Your task to perform on an android device: clear history in the chrome app Image 0: 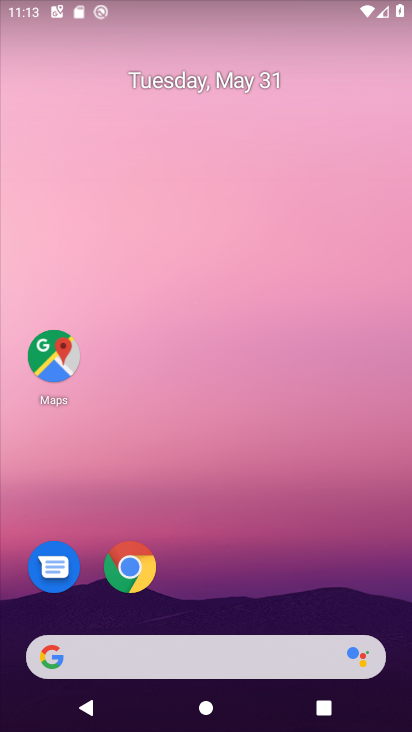
Step 0: click (122, 563)
Your task to perform on an android device: clear history in the chrome app Image 1: 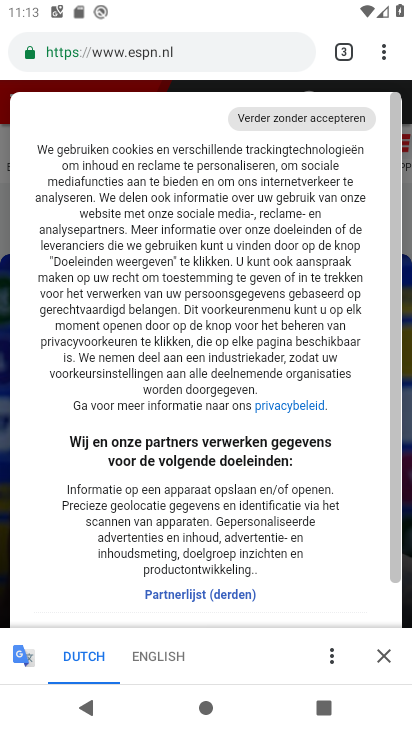
Step 1: click (391, 58)
Your task to perform on an android device: clear history in the chrome app Image 2: 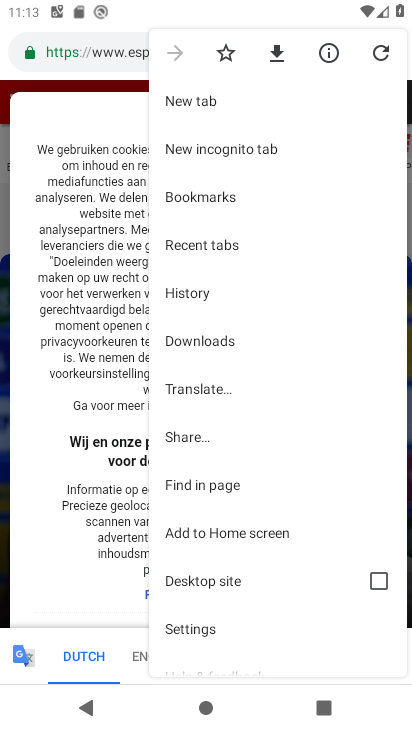
Step 2: click (186, 308)
Your task to perform on an android device: clear history in the chrome app Image 3: 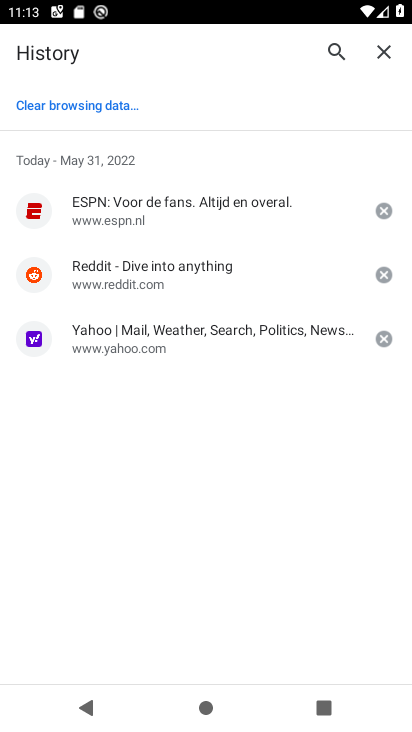
Step 3: click (111, 105)
Your task to perform on an android device: clear history in the chrome app Image 4: 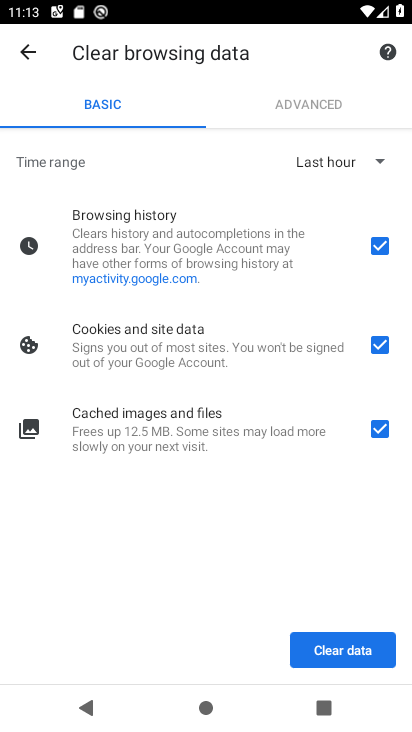
Step 4: click (382, 342)
Your task to perform on an android device: clear history in the chrome app Image 5: 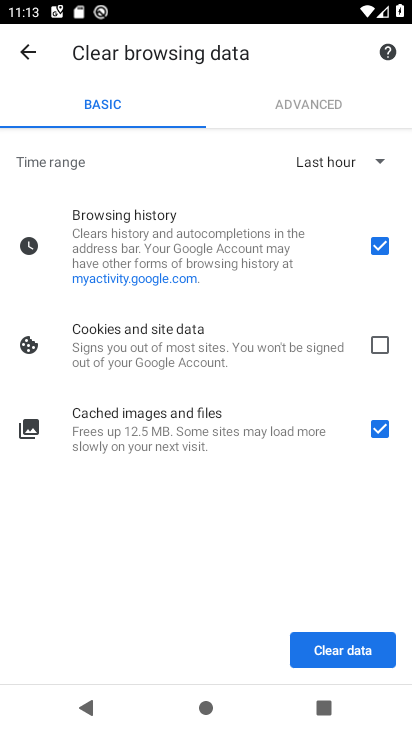
Step 5: click (381, 427)
Your task to perform on an android device: clear history in the chrome app Image 6: 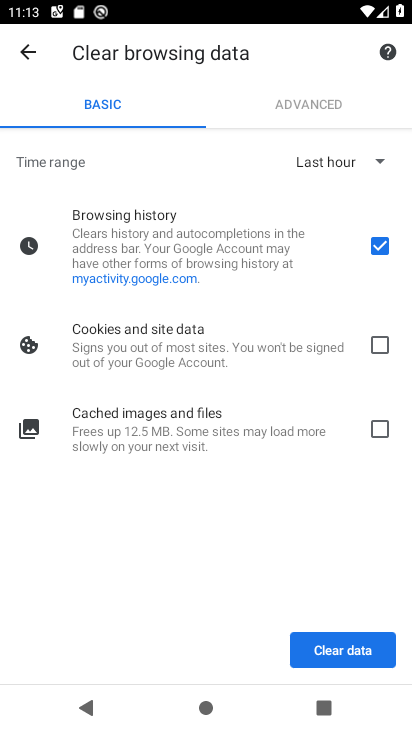
Step 6: click (357, 649)
Your task to perform on an android device: clear history in the chrome app Image 7: 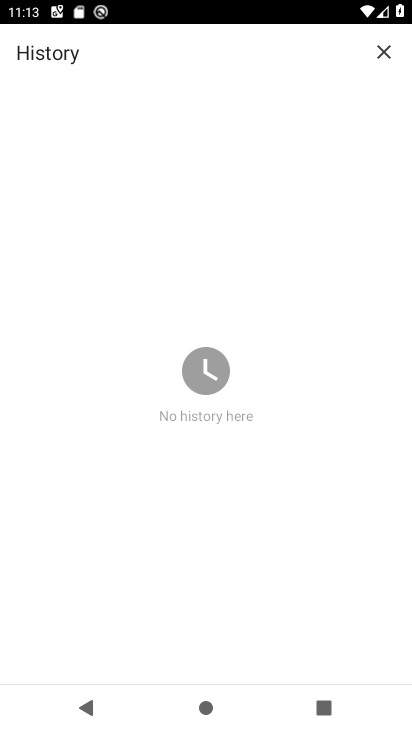
Step 7: task complete